Your task to perform on an android device: check data usage Image 0: 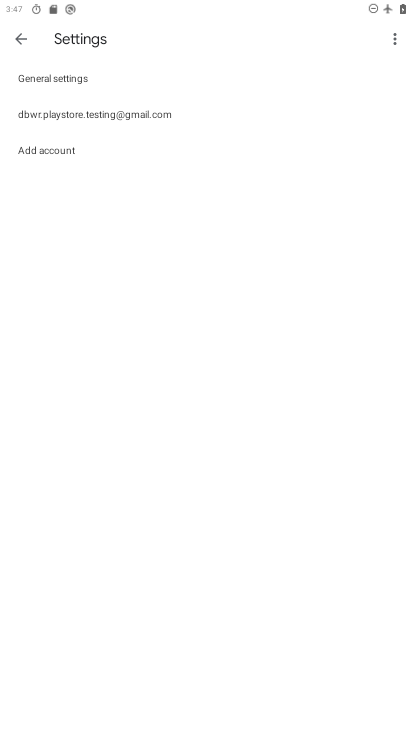
Step 0: press home button
Your task to perform on an android device: check data usage Image 1: 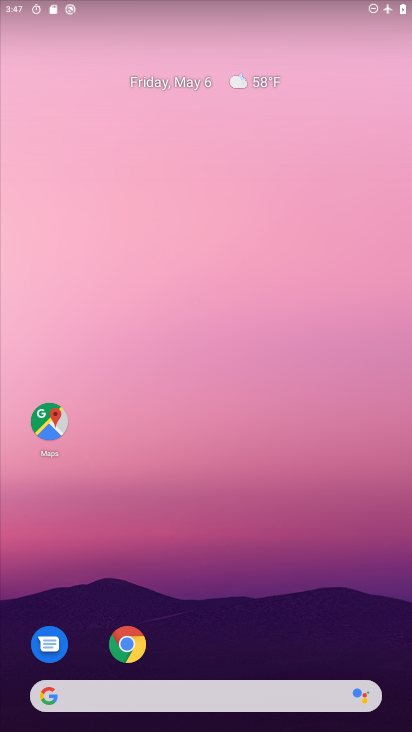
Step 1: drag from (200, 730) to (185, 412)
Your task to perform on an android device: check data usage Image 2: 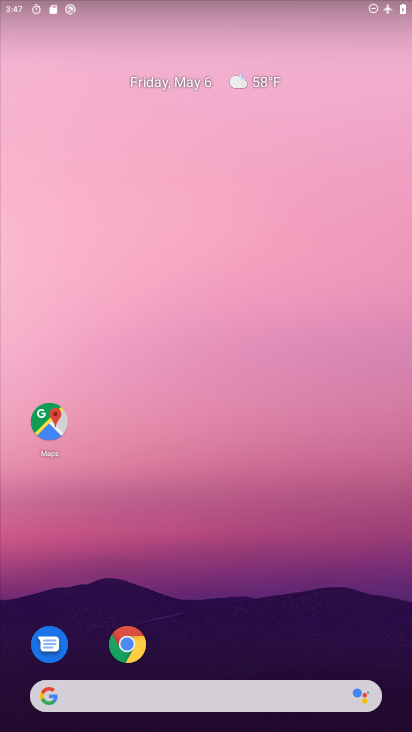
Step 2: drag from (207, 718) to (203, 161)
Your task to perform on an android device: check data usage Image 3: 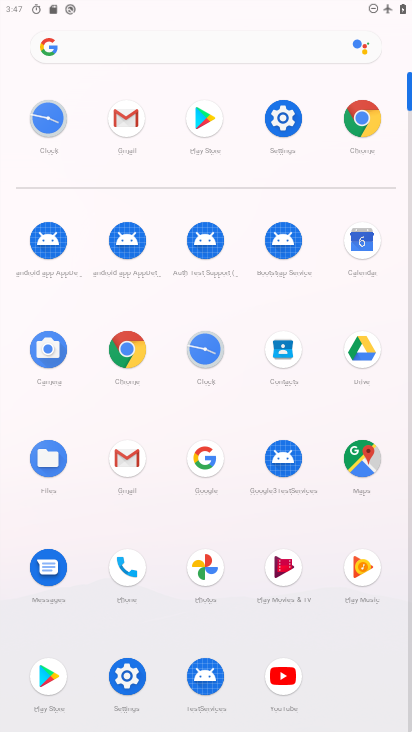
Step 3: click (281, 115)
Your task to perform on an android device: check data usage Image 4: 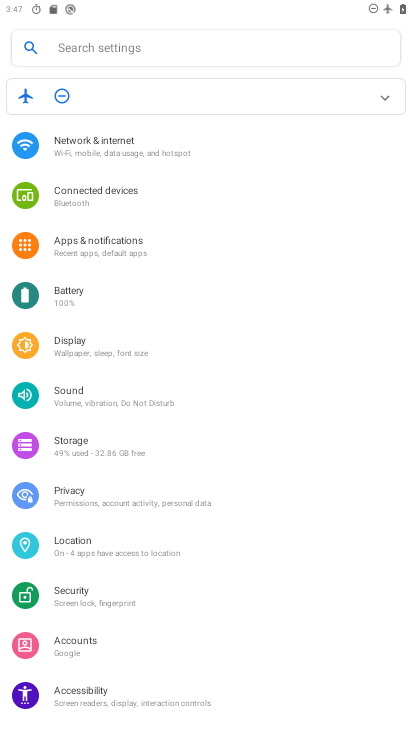
Step 4: click (84, 138)
Your task to perform on an android device: check data usage Image 5: 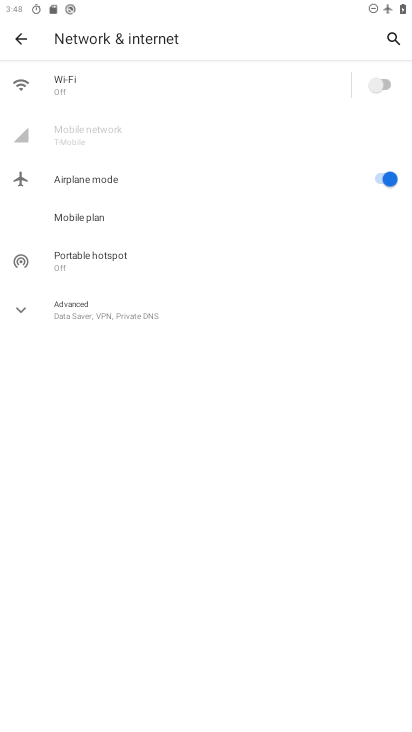
Step 5: click (378, 176)
Your task to perform on an android device: check data usage Image 6: 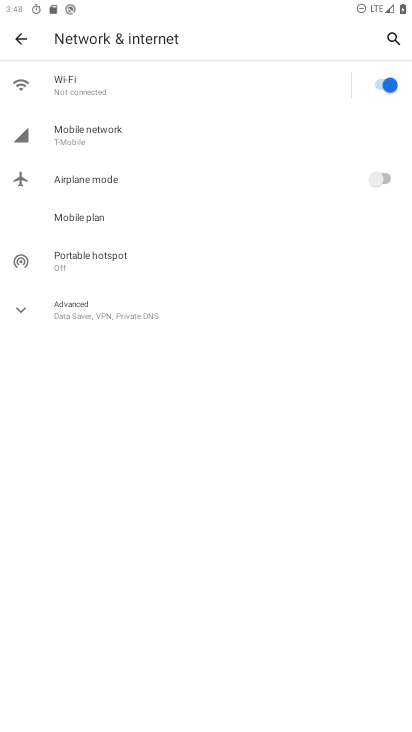
Step 6: click (72, 132)
Your task to perform on an android device: check data usage Image 7: 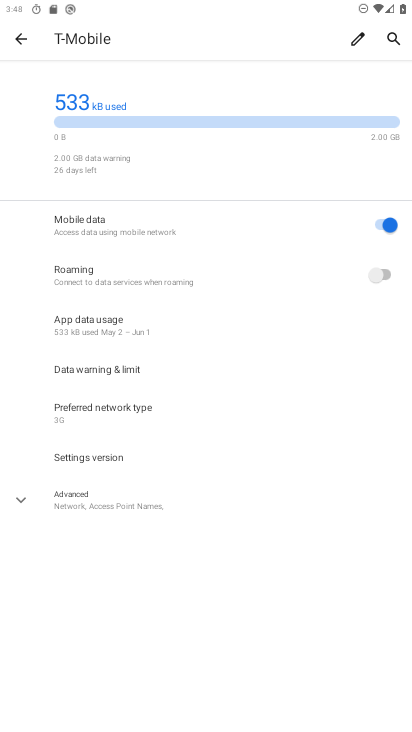
Step 7: click (77, 325)
Your task to perform on an android device: check data usage Image 8: 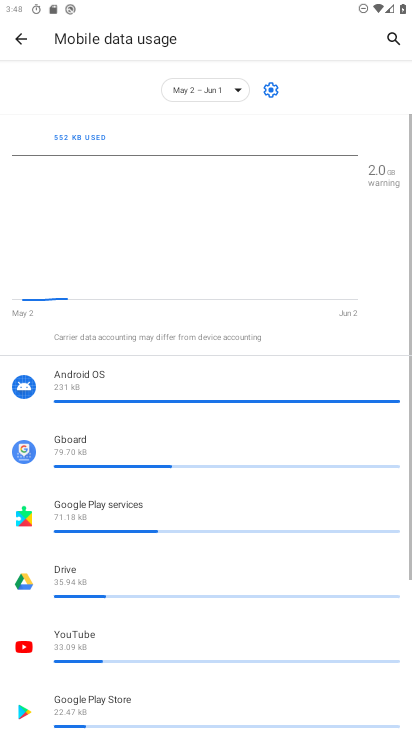
Step 8: task complete